Your task to perform on an android device: Open Chrome and go to settings Image 0: 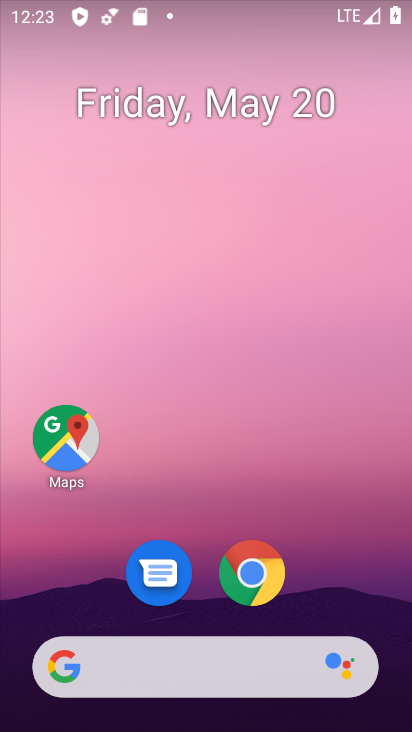
Step 0: click (213, 19)
Your task to perform on an android device: Open Chrome and go to settings Image 1: 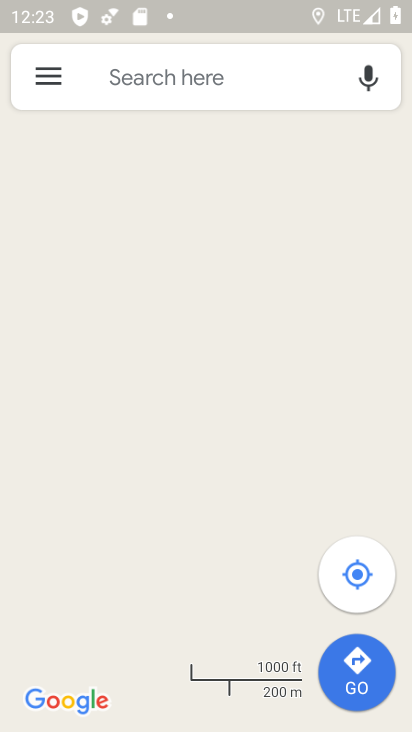
Step 1: press home button
Your task to perform on an android device: Open Chrome and go to settings Image 2: 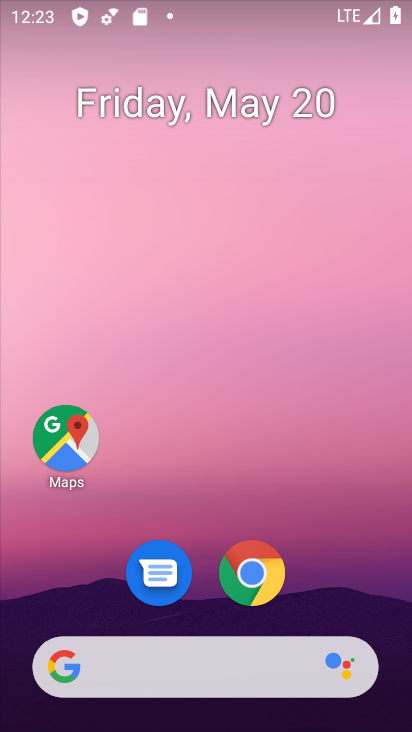
Step 2: click (260, 593)
Your task to perform on an android device: Open Chrome and go to settings Image 3: 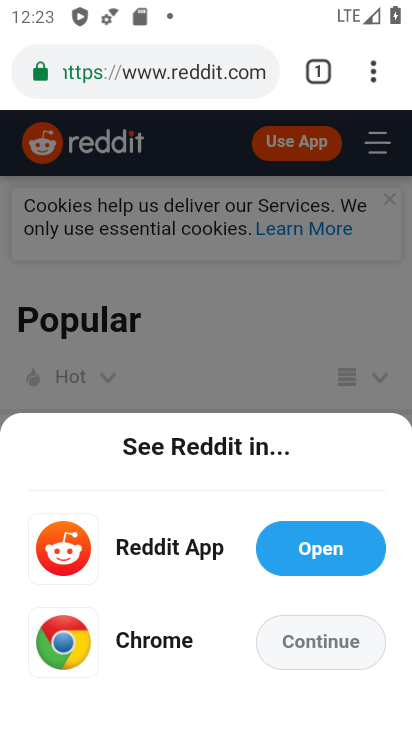
Step 3: click (372, 60)
Your task to perform on an android device: Open Chrome and go to settings Image 4: 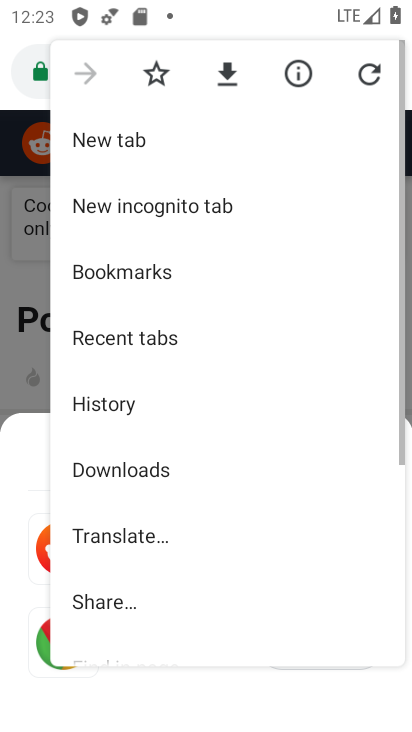
Step 4: drag from (129, 578) to (161, 256)
Your task to perform on an android device: Open Chrome and go to settings Image 5: 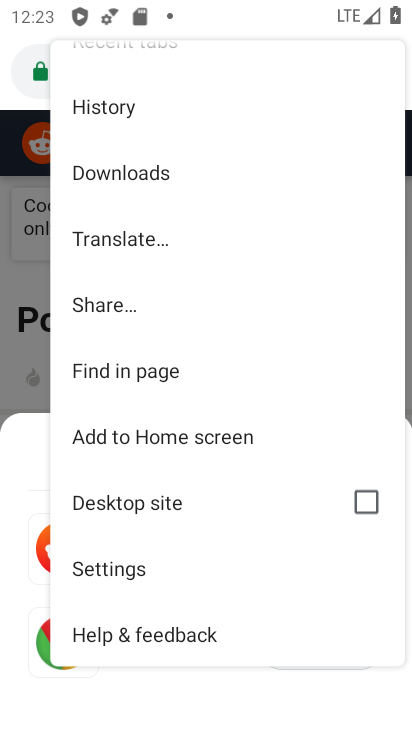
Step 5: click (134, 560)
Your task to perform on an android device: Open Chrome and go to settings Image 6: 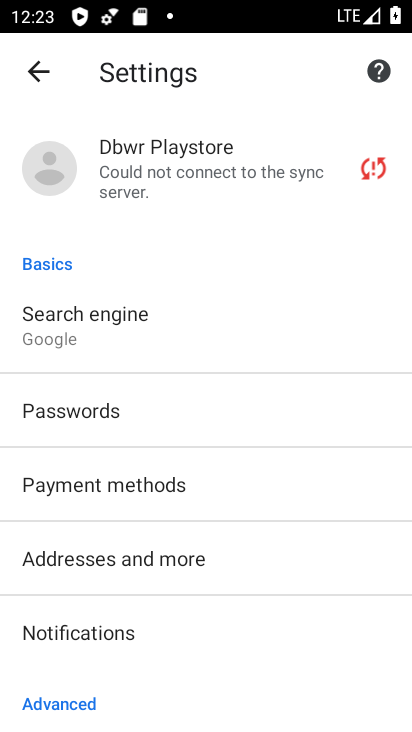
Step 6: task complete